Your task to perform on an android device: Go to calendar. Show me events next week Image 0: 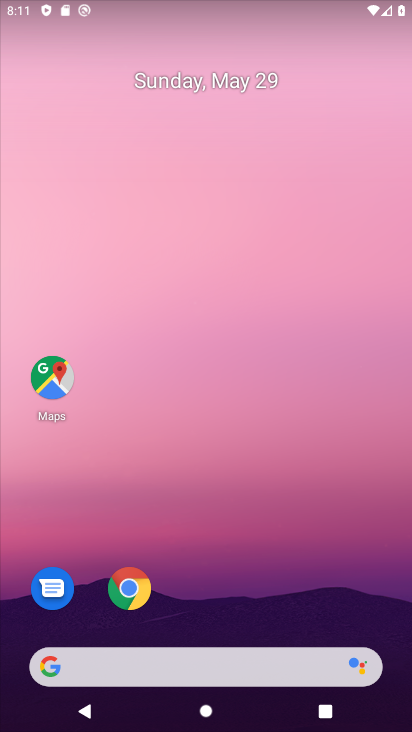
Step 0: drag from (261, 606) to (289, 271)
Your task to perform on an android device: Go to calendar. Show me events next week Image 1: 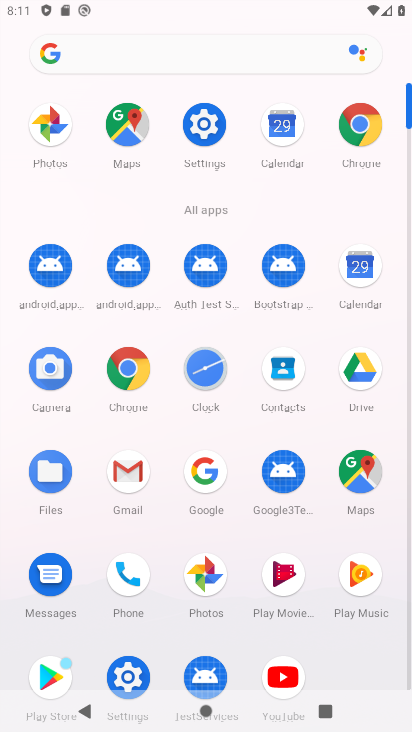
Step 1: click (368, 261)
Your task to perform on an android device: Go to calendar. Show me events next week Image 2: 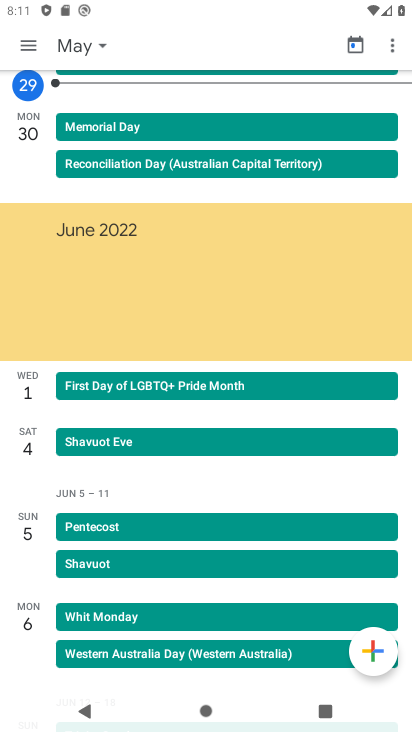
Step 2: click (33, 38)
Your task to perform on an android device: Go to calendar. Show me events next week Image 3: 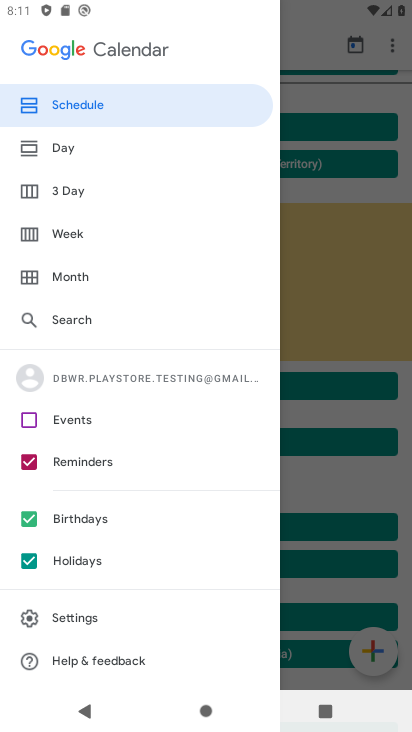
Step 3: click (73, 271)
Your task to perform on an android device: Go to calendar. Show me events next week Image 4: 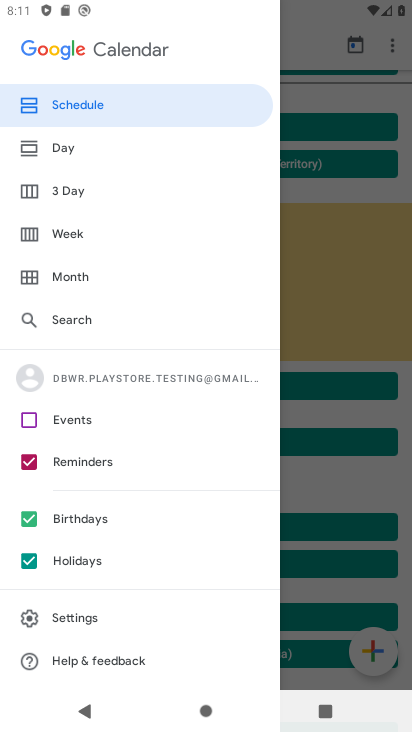
Step 4: click (66, 274)
Your task to perform on an android device: Go to calendar. Show me events next week Image 5: 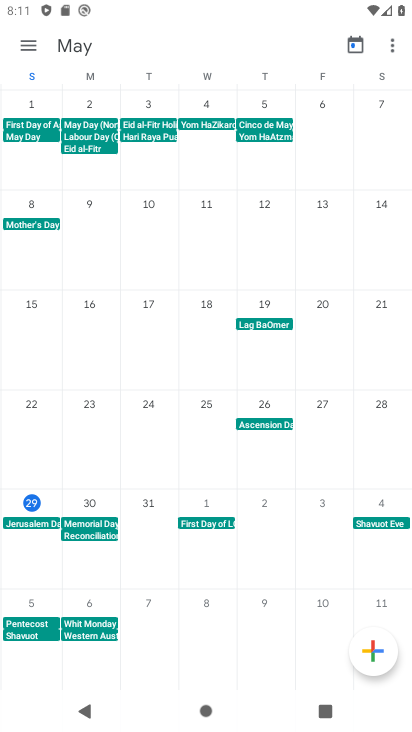
Step 5: task complete